Your task to perform on an android device: turn on showing notifications on the lock screen Image 0: 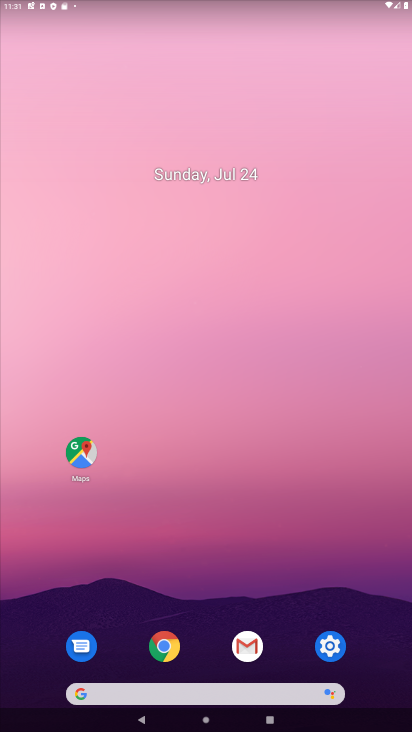
Step 0: click (332, 638)
Your task to perform on an android device: turn on showing notifications on the lock screen Image 1: 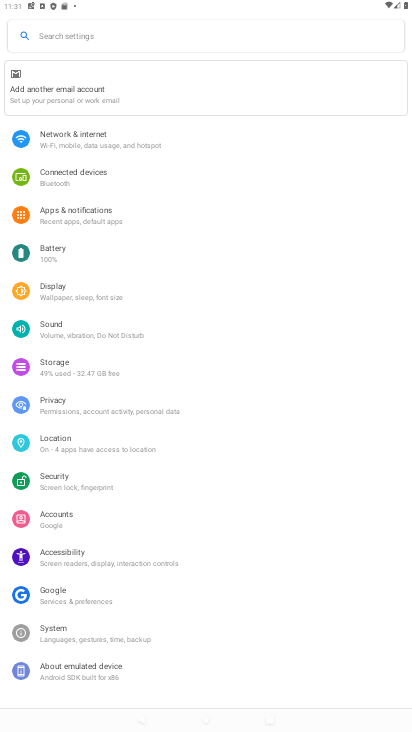
Step 1: click (62, 41)
Your task to perform on an android device: turn on showing notifications on the lock screen Image 2: 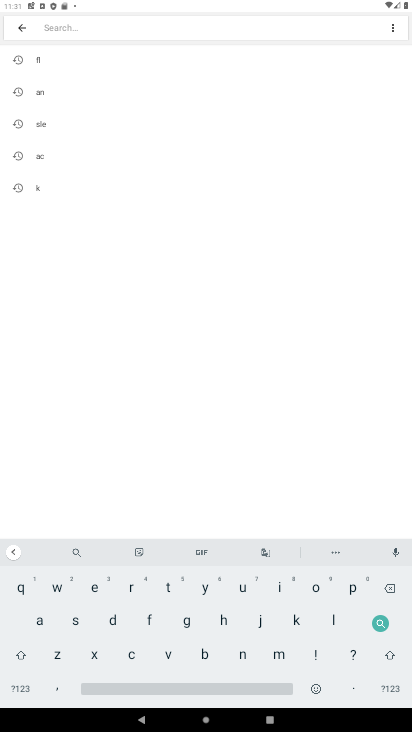
Step 2: click (245, 680)
Your task to perform on an android device: turn on showing notifications on the lock screen Image 3: 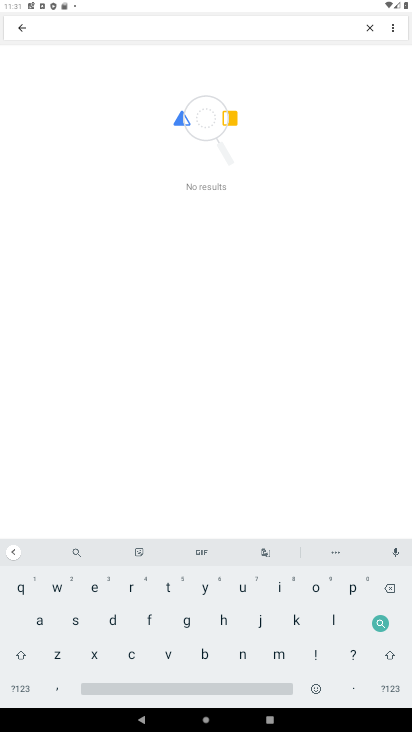
Step 3: click (244, 660)
Your task to perform on an android device: turn on showing notifications on the lock screen Image 4: 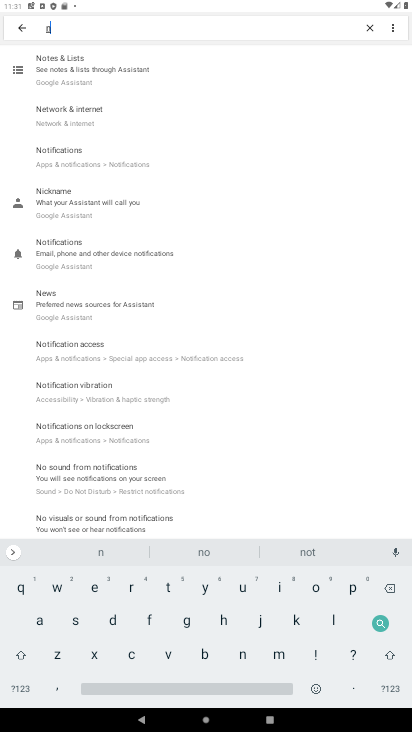
Step 4: click (315, 588)
Your task to perform on an android device: turn on showing notifications on the lock screen Image 5: 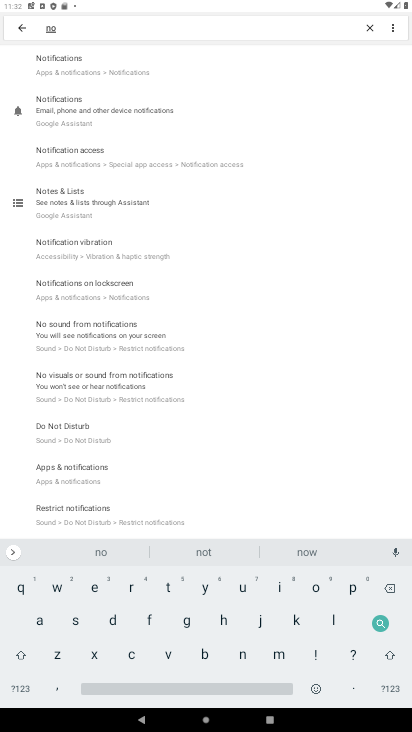
Step 5: click (184, 87)
Your task to perform on an android device: turn on showing notifications on the lock screen Image 6: 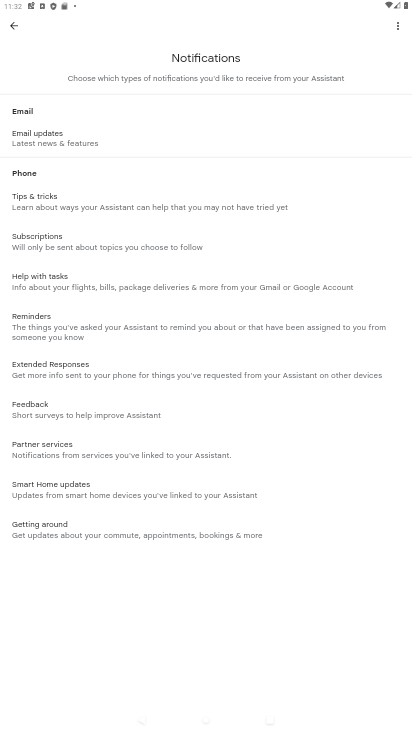
Step 6: task complete